Your task to perform on an android device: turn on showing notifications on the lock screen Image 0: 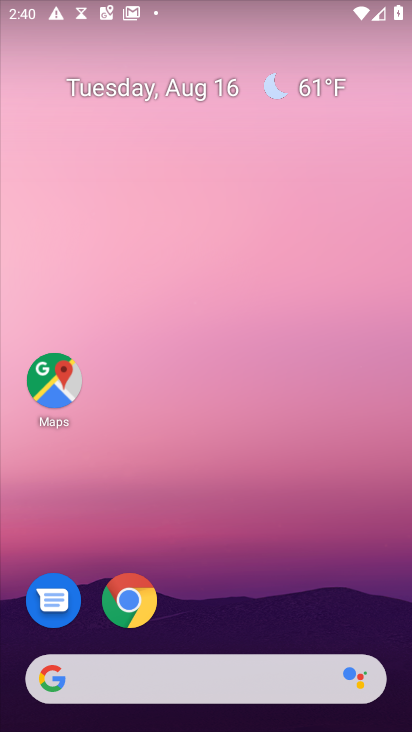
Step 0: drag from (168, 407) to (146, 163)
Your task to perform on an android device: turn on showing notifications on the lock screen Image 1: 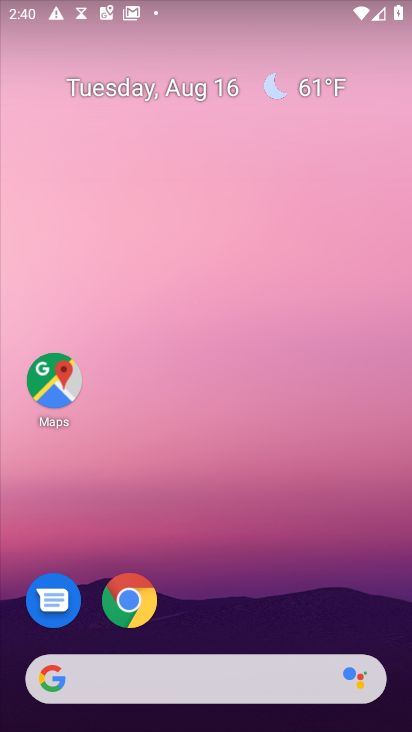
Step 1: click (180, 152)
Your task to perform on an android device: turn on showing notifications on the lock screen Image 2: 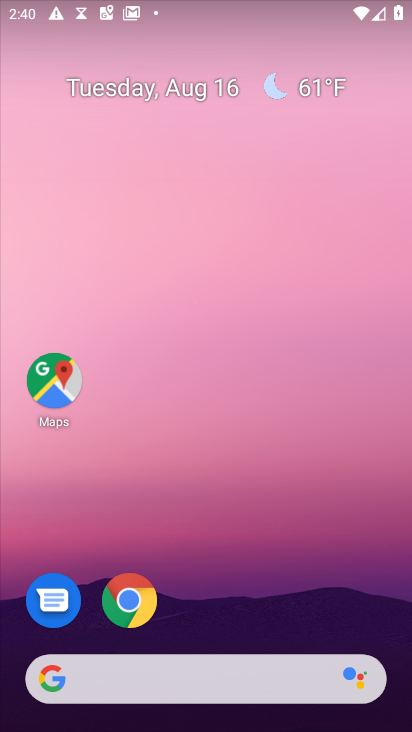
Step 2: drag from (189, 661) to (149, 197)
Your task to perform on an android device: turn on showing notifications on the lock screen Image 3: 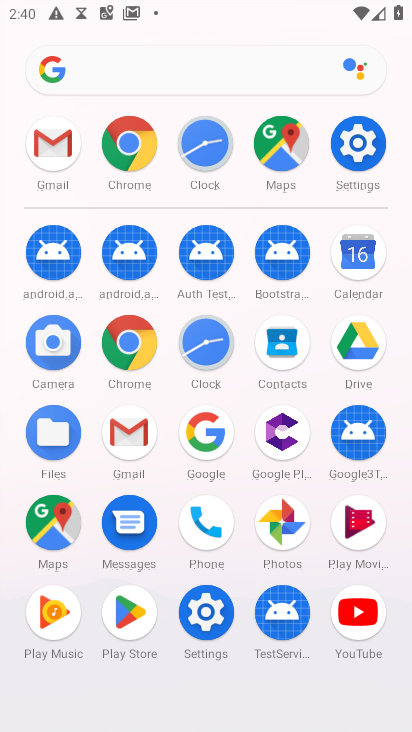
Step 3: click (343, 157)
Your task to perform on an android device: turn on showing notifications on the lock screen Image 4: 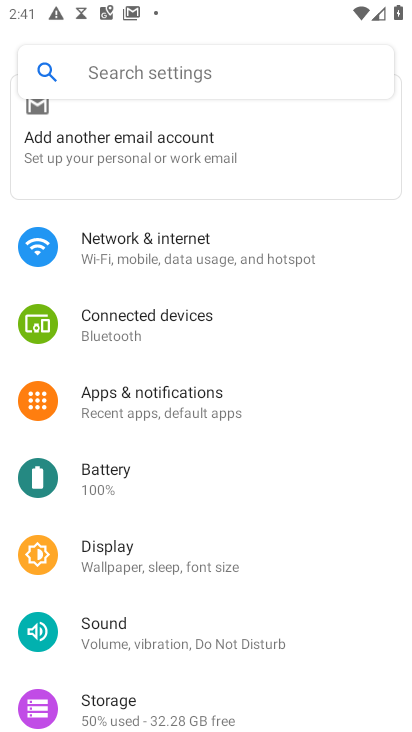
Step 4: click (198, 415)
Your task to perform on an android device: turn on showing notifications on the lock screen Image 5: 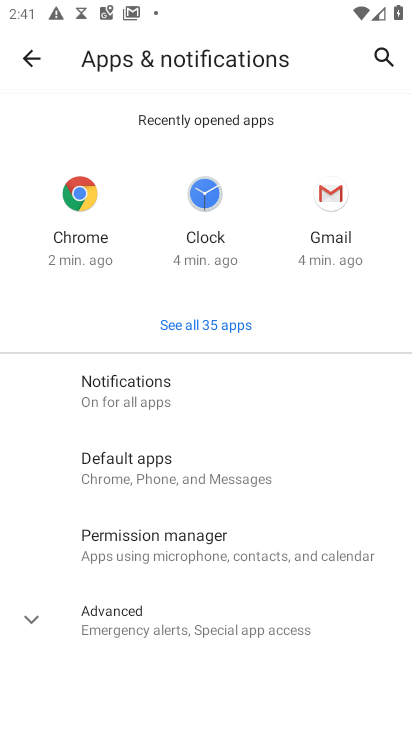
Step 5: click (175, 405)
Your task to perform on an android device: turn on showing notifications on the lock screen Image 6: 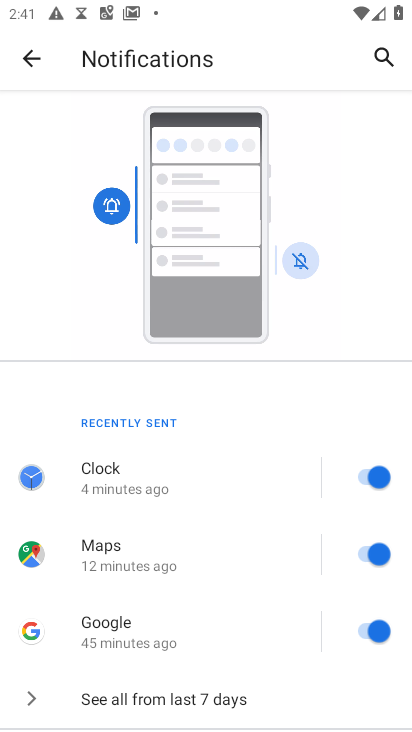
Step 6: drag from (213, 635) to (183, 197)
Your task to perform on an android device: turn on showing notifications on the lock screen Image 7: 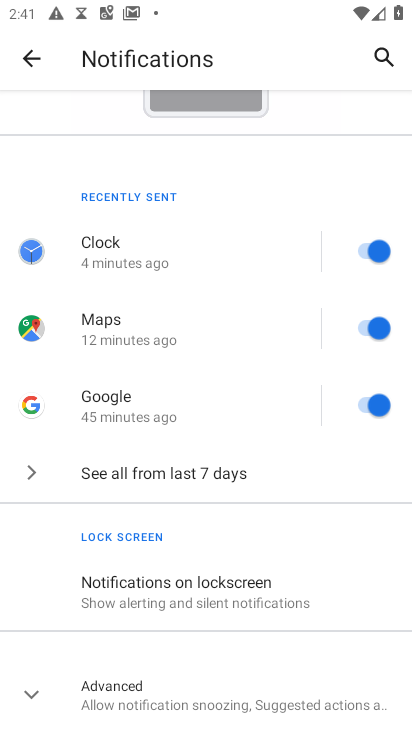
Step 7: click (201, 591)
Your task to perform on an android device: turn on showing notifications on the lock screen Image 8: 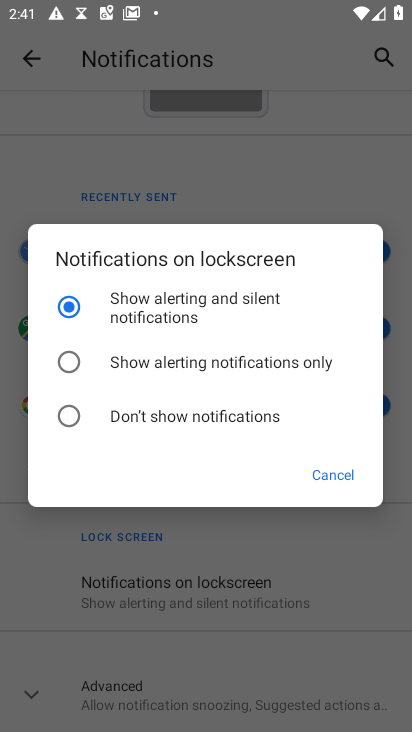
Step 8: click (126, 299)
Your task to perform on an android device: turn on showing notifications on the lock screen Image 9: 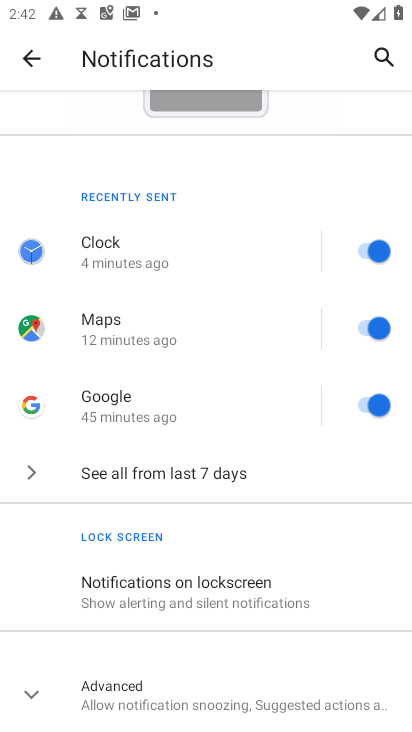
Step 9: task complete